Your task to perform on an android device: see sites visited before in the chrome app Image 0: 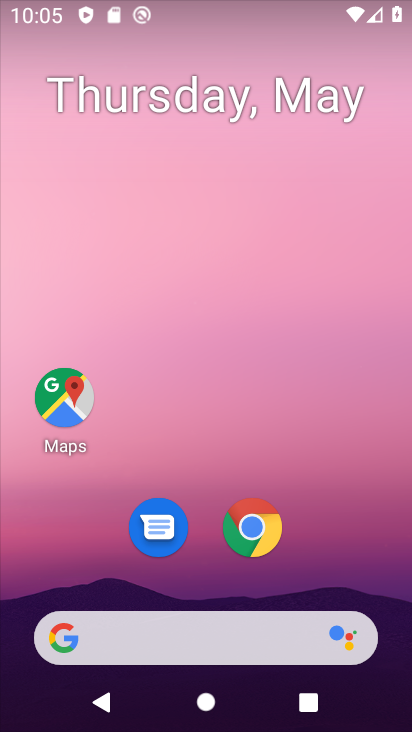
Step 0: drag from (297, 576) to (212, 83)
Your task to perform on an android device: see sites visited before in the chrome app Image 1: 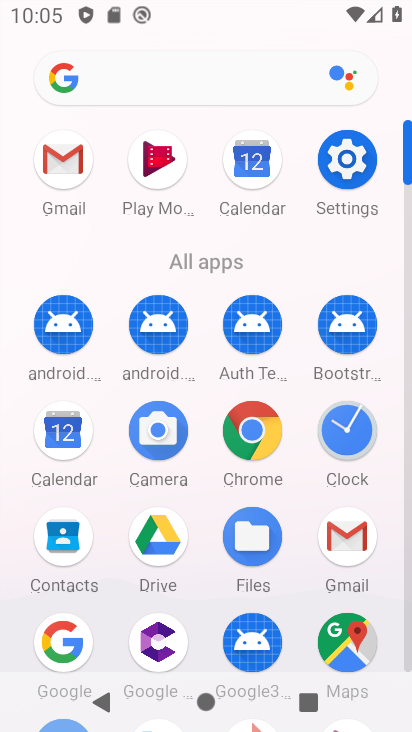
Step 1: click (247, 487)
Your task to perform on an android device: see sites visited before in the chrome app Image 2: 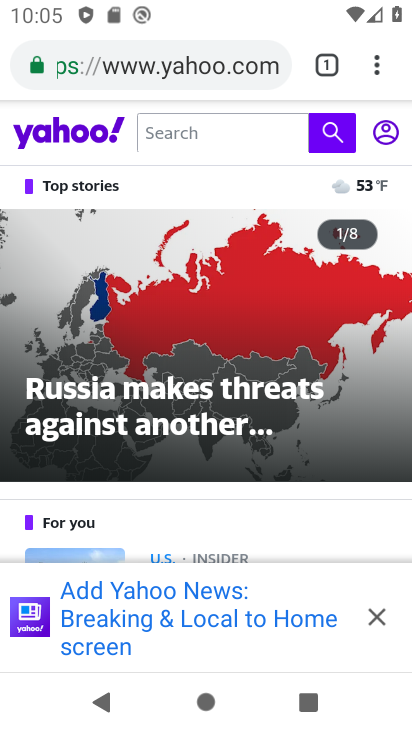
Step 2: click (378, 68)
Your task to perform on an android device: see sites visited before in the chrome app Image 3: 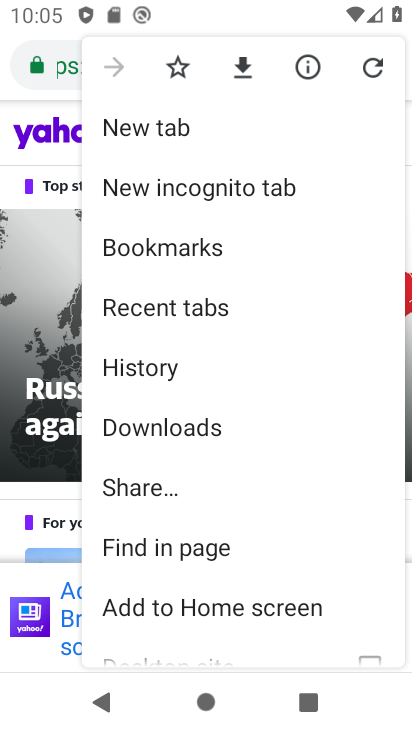
Step 3: click (146, 370)
Your task to perform on an android device: see sites visited before in the chrome app Image 4: 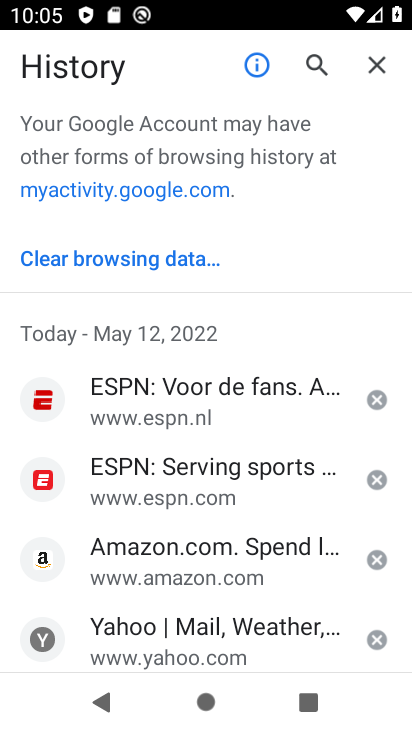
Step 4: task complete